Your task to perform on an android device: Open the phone app and click the voicemail tab. Image 0: 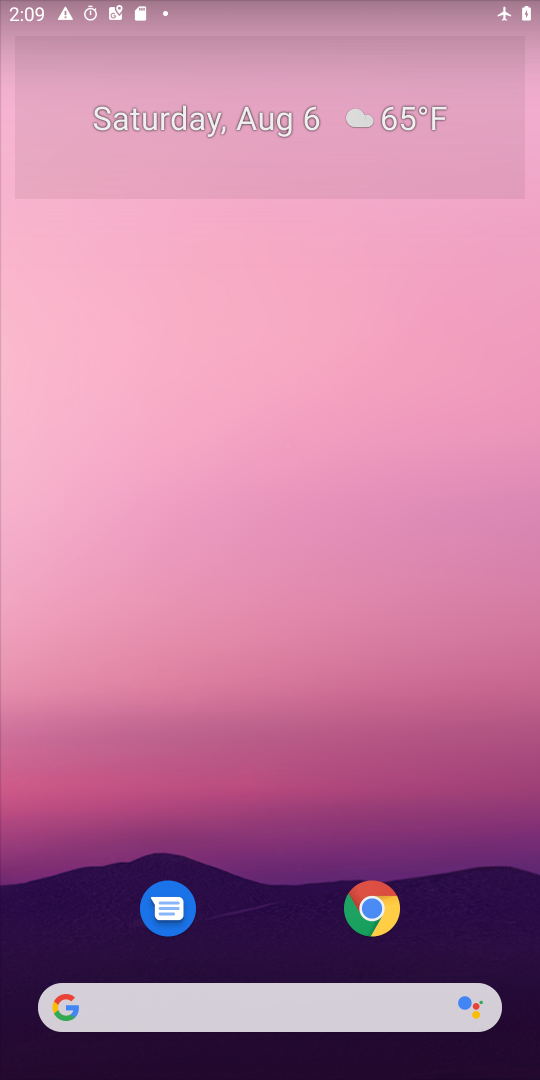
Step 0: drag from (237, 705) to (233, 17)
Your task to perform on an android device: Open the phone app and click the voicemail tab. Image 1: 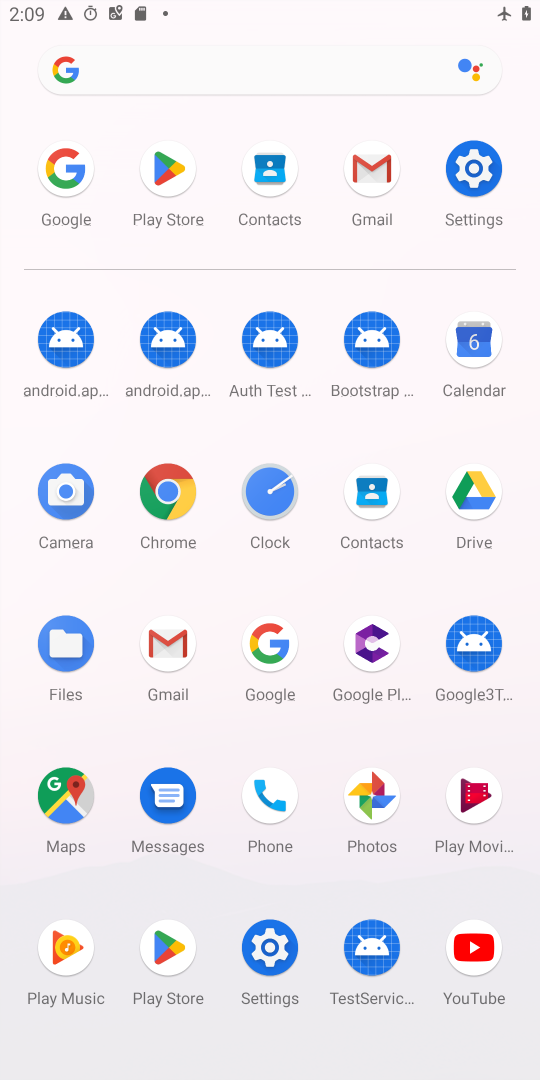
Step 1: click (251, 799)
Your task to perform on an android device: Open the phone app and click the voicemail tab. Image 2: 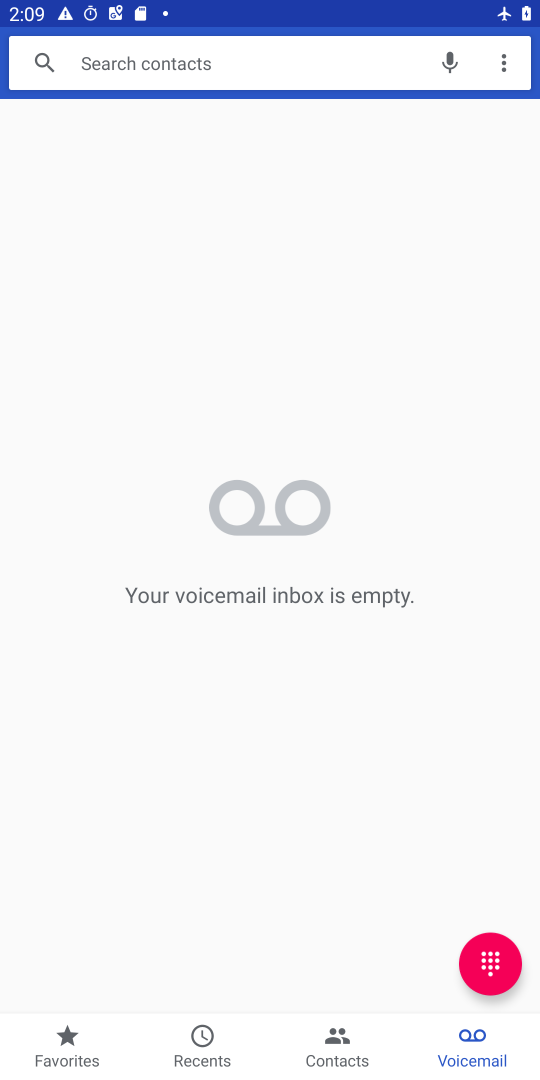
Step 2: click (478, 1061)
Your task to perform on an android device: Open the phone app and click the voicemail tab. Image 3: 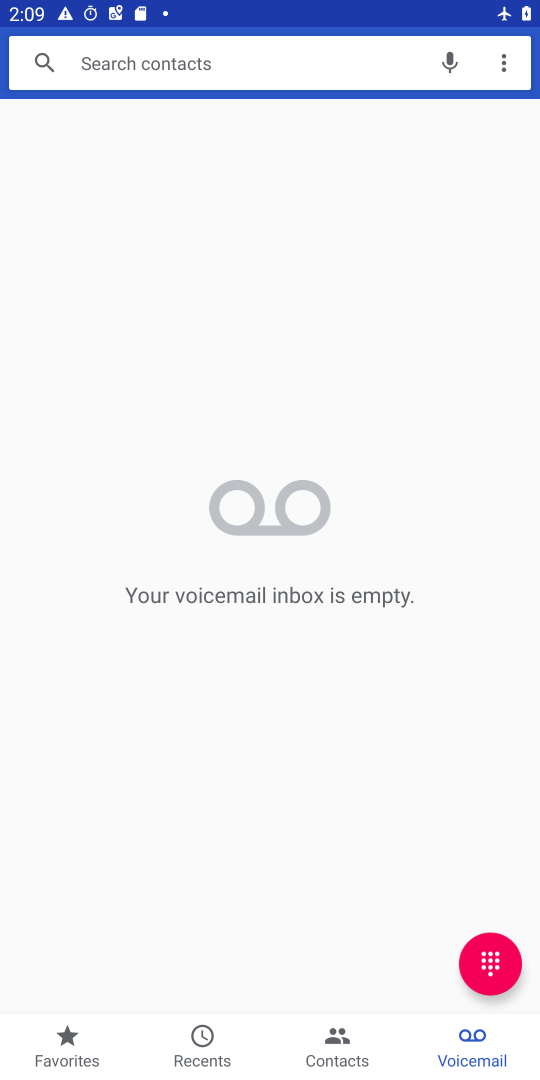
Step 3: task complete